Your task to perform on an android device: empty trash in google photos Image 0: 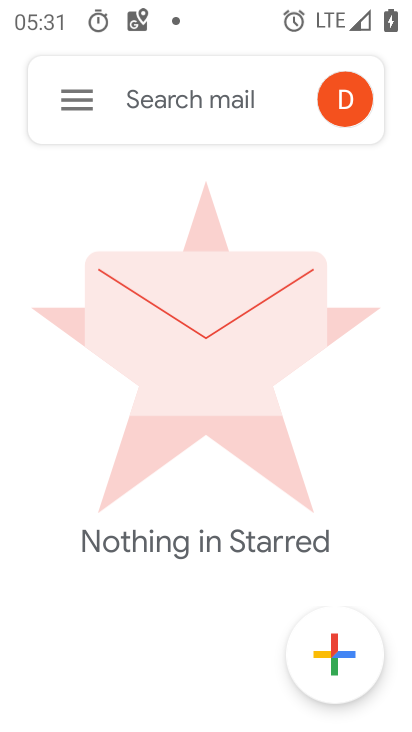
Step 0: press home button
Your task to perform on an android device: empty trash in google photos Image 1: 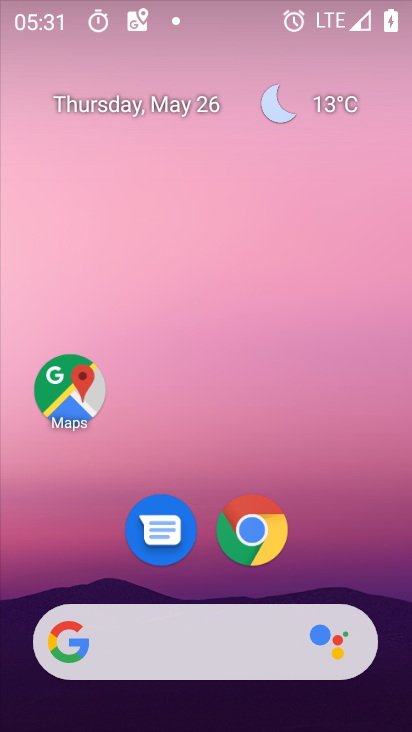
Step 1: drag from (221, 639) to (269, 1)
Your task to perform on an android device: empty trash in google photos Image 2: 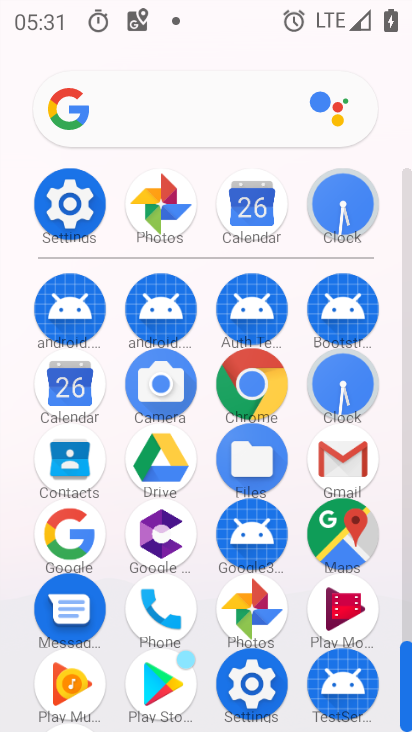
Step 2: click (262, 598)
Your task to perform on an android device: empty trash in google photos Image 3: 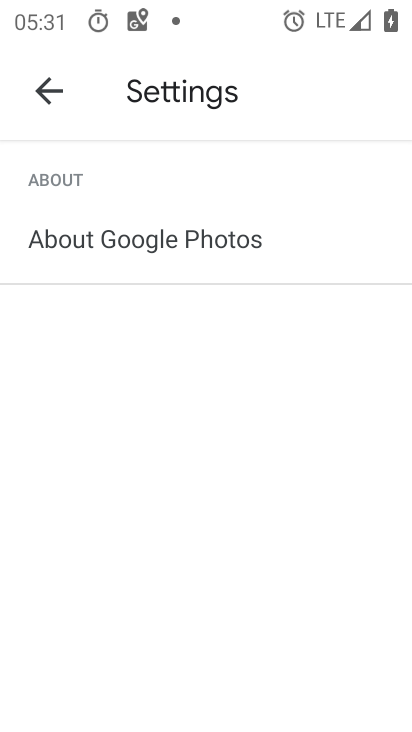
Step 3: press back button
Your task to perform on an android device: empty trash in google photos Image 4: 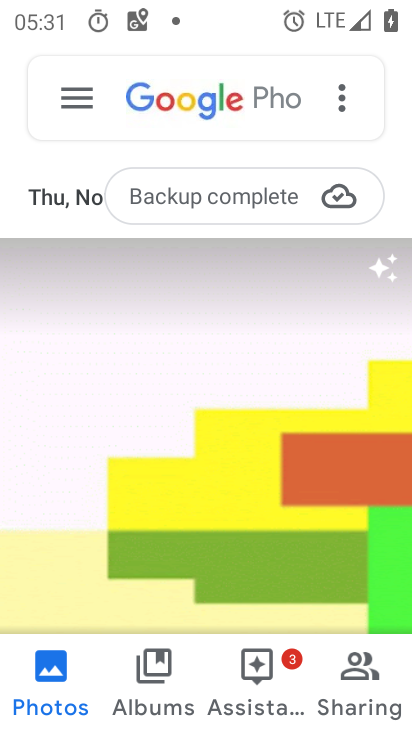
Step 4: click (70, 97)
Your task to perform on an android device: empty trash in google photos Image 5: 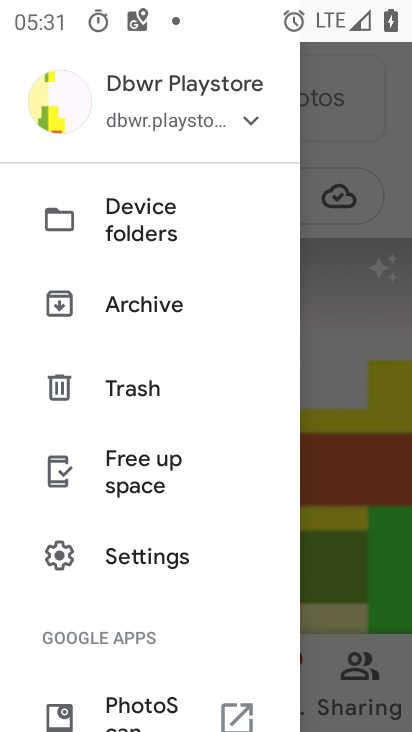
Step 5: click (129, 397)
Your task to perform on an android device: empty trash in google photos Image 6: 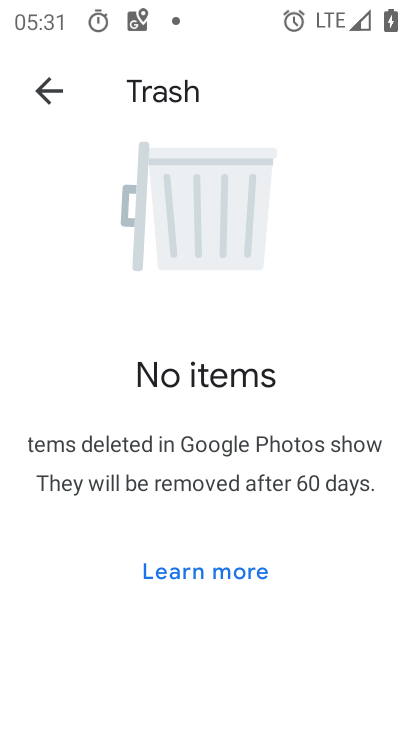
Step 6: task complete